Your task to perform on an android device: Is it going to rain today? Image 0: 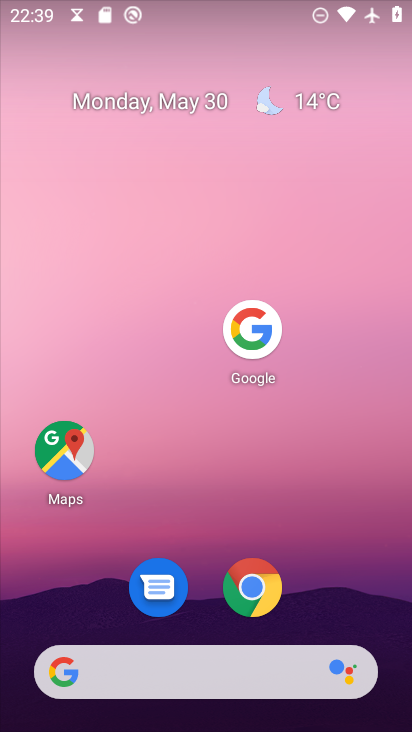
Step 0: press home button
Your task to perform on an android device: Is it going to rain today? Image 1: 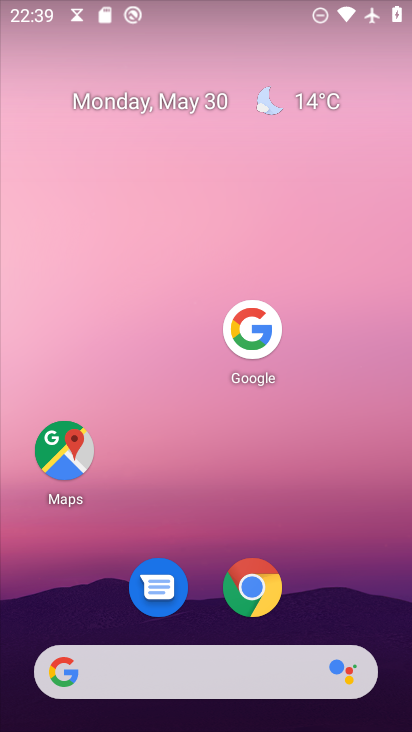
Step 1: click (305, 95)
Your task to perform on an android device: Is it going to rain today? Image 2: 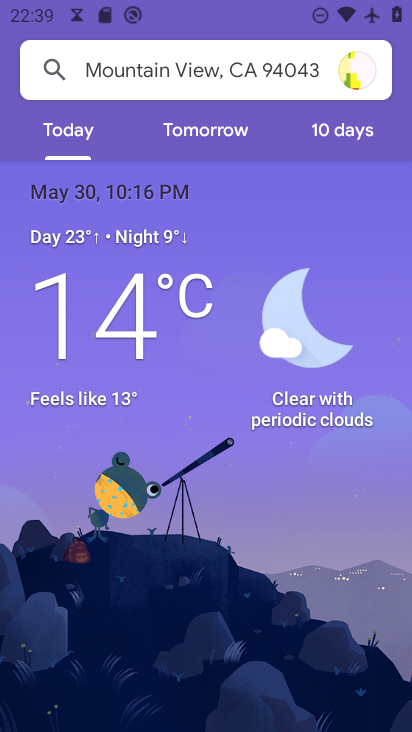
Step 2: task complete